Your task to perform on an android device: Open Google Maps and go to "Timeline" Image 0: 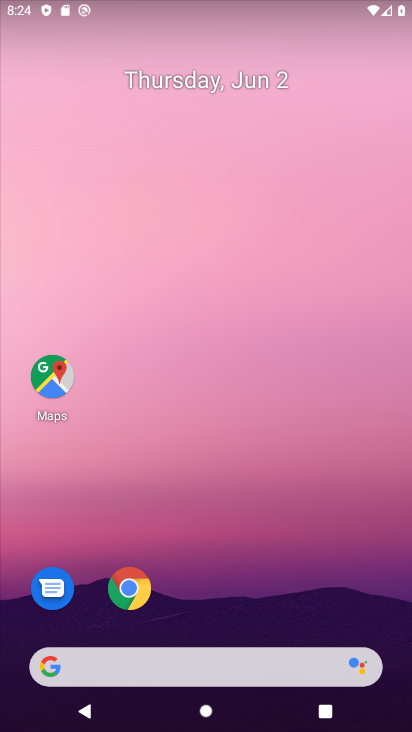
Step 0: click (47, 381)
Your task to perform on an android device: Open Google Maps and go to "Timeline" Image 1: 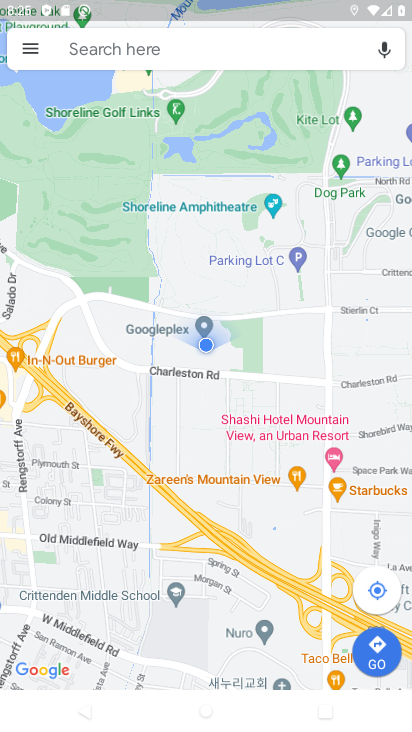
Step 1: click (40, 56)
Your task to perform on an android device: Open Google Maps and go to "Timeline" Image 2: 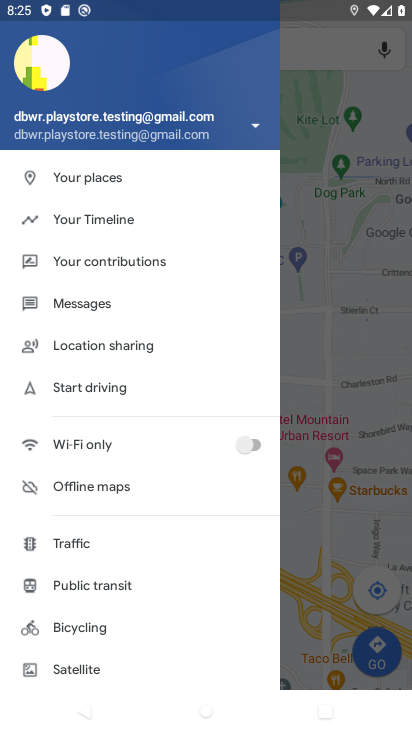
Step 2: click (102, 223)
Your task to perform on an android device: Open Google Maps and go to "Timeline" Image 3: 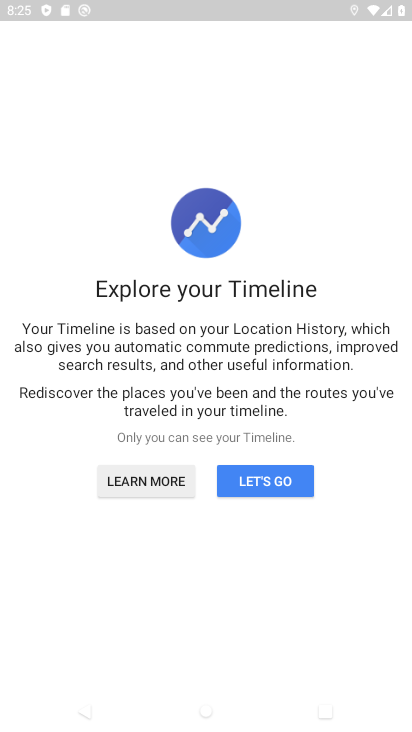
Step 3: click (297, 485)
Your task to perform on an android device: Open Google Maps and go to "Timeline" Image 4: 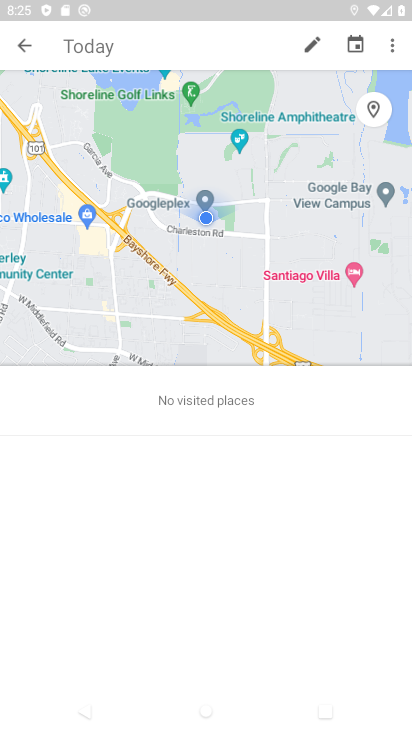
Step 4: task complete